Your task to perform on an android device: turn on data saver in the chrome app Image 0: 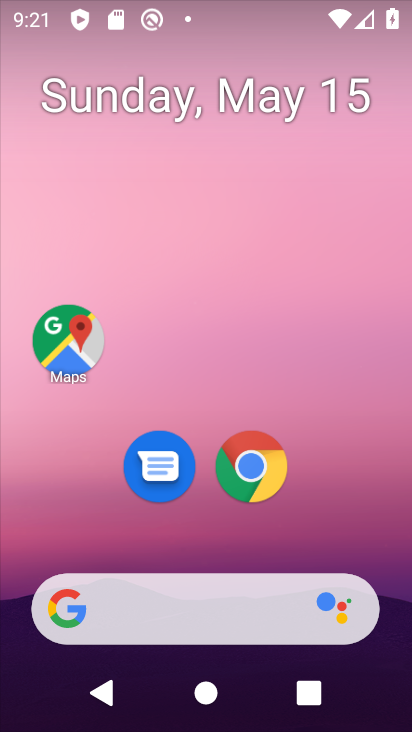
Step 0: click (253, 469)
Your task to perform on an android device: turn on data saver in the chrome app Image 1: 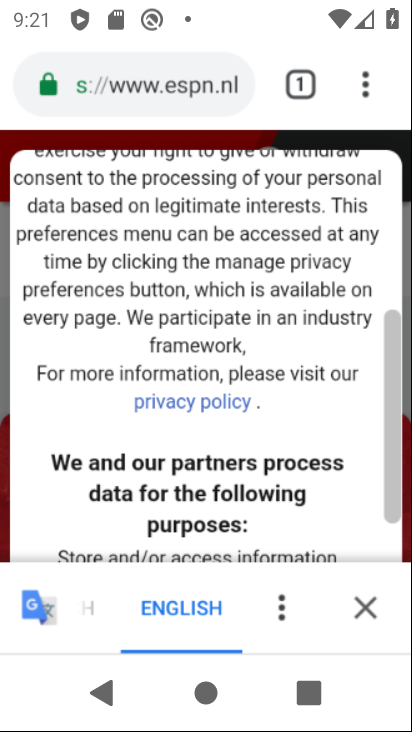
Step 1: drag from (362, 87) to (177, 509)
Your task to perform on an android device: turn on data saver in the chrome app Image 2: 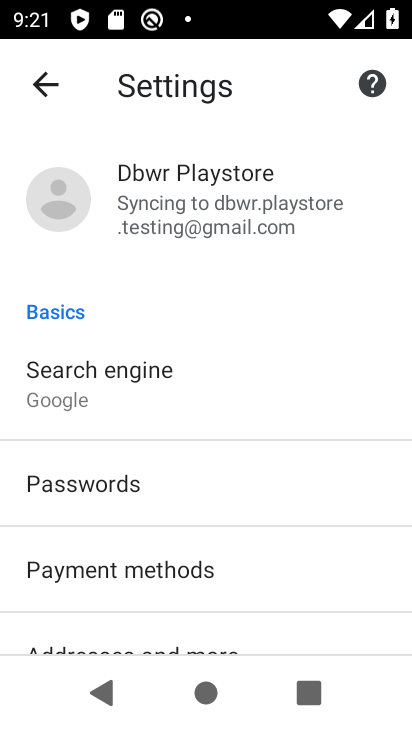
Step 2: drag from (223, 533) to (242, 69)
Your task to perform on an android device: turn on data saver in the chrome app Image 3: 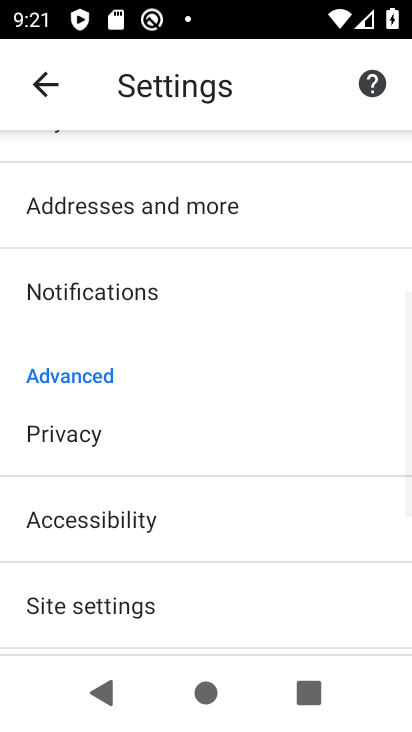
Step 3: drag from (180, 554) to (212, 174)
Your task to perform on an android device: turn on data saver in the chrome app Image 4: 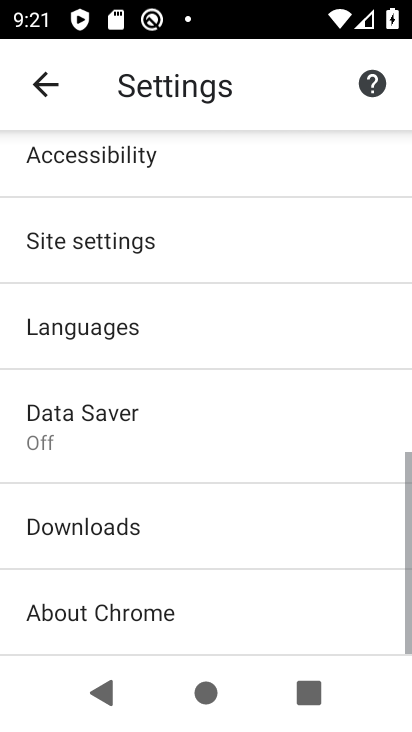
Step 4: click (112, 436)
Your task to perform on an android device: turn on data saver in the chrome app Image 5: 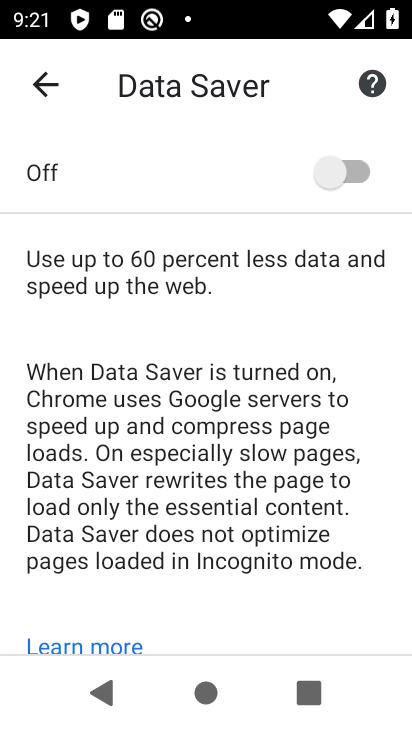
Step 5: click (338, 182)
Your task to perform on an android device: turn on data saver in the chrome app Image 6: 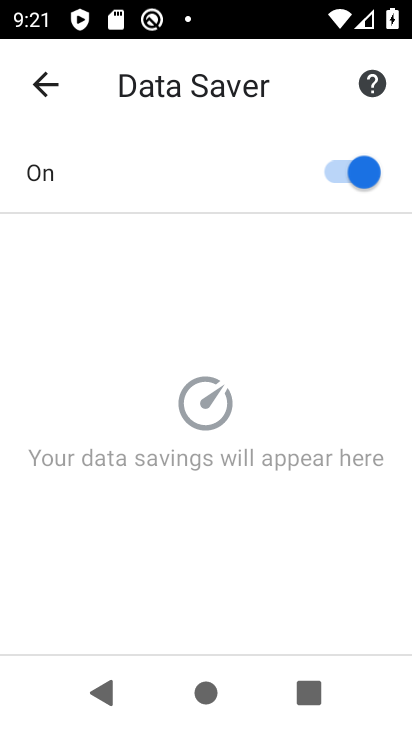
Step 6: task complete